Your task to perform on an android device: Open the phone app and click the voicemail tab. Image 0: 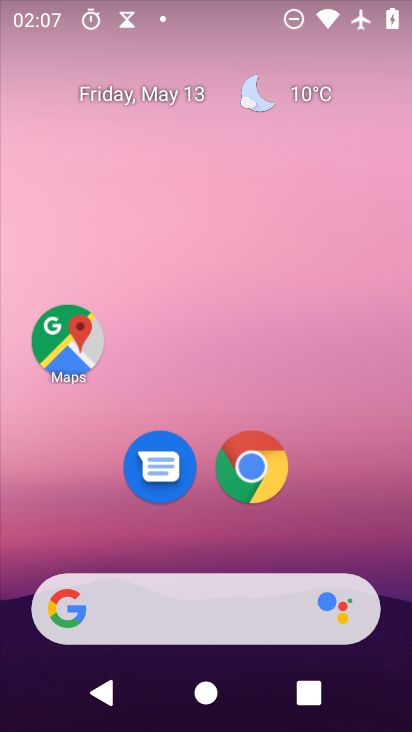
Step 0: drag from (289, 533) to (232, 55)
Your task to perform on an android device: Open the phone app and click the voicemail tab. Image 1: 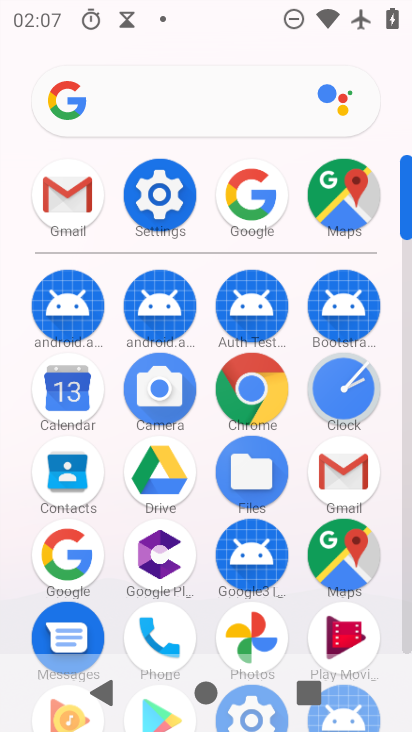
Step 1: click (170, 631)
Your task to perform on an android device: Open the phone app and click the voicemail tab. Image 2: 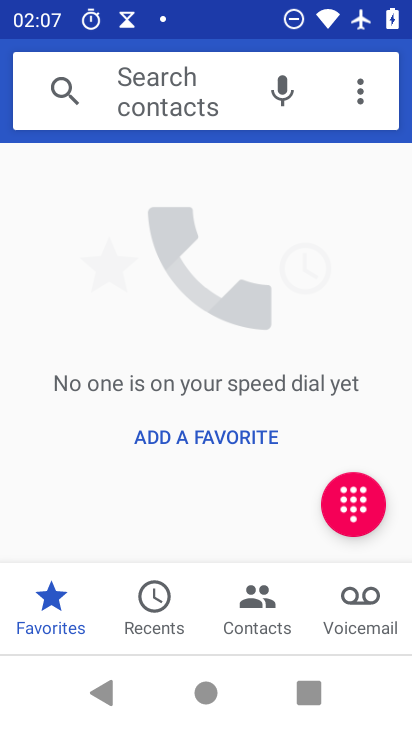
Step 2: click (344, 612)
Your task to perform on an android device: Open the phone app and click the voicemail tab. Image 3: 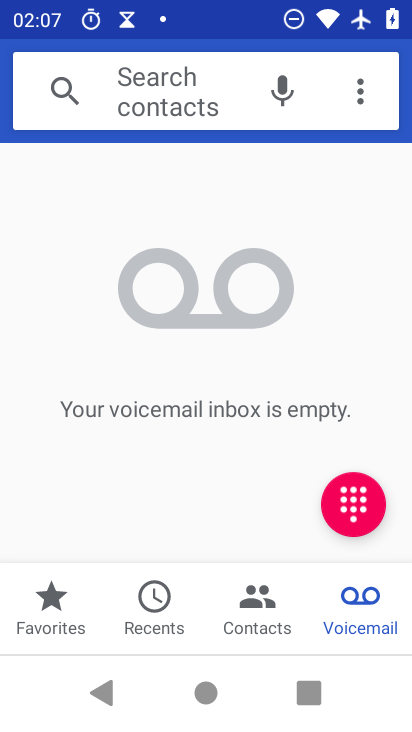
Step 3: task complete